Your task to perform on an android device: check battery use Image 0: 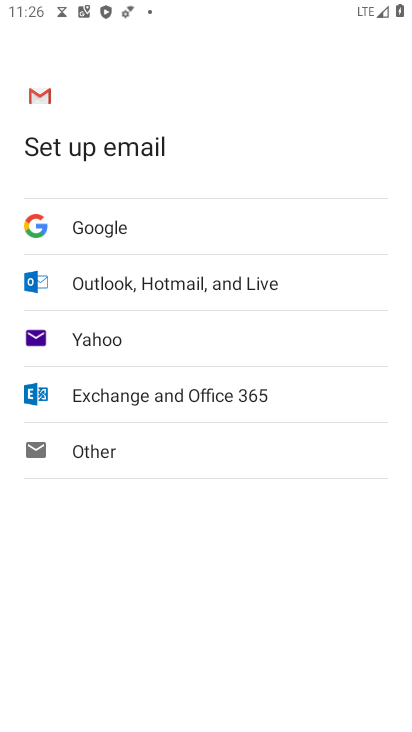
Step 0: press back button
Your task to perform on an android device: check battery use Image 1: 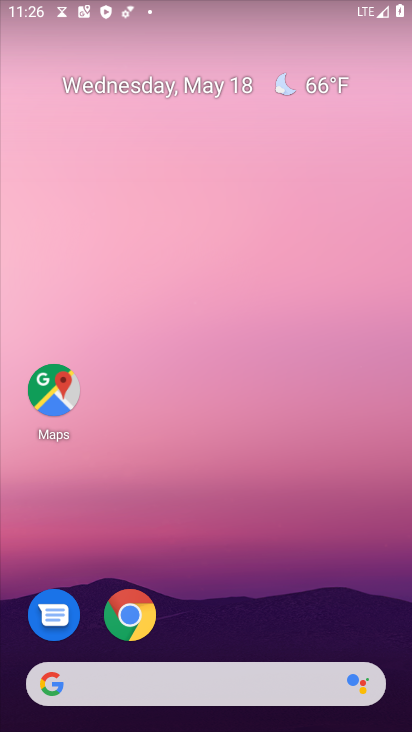
Step 1: drag from (215, 582) to (199, 36)
Your task to perform on an android device: check battery use Image 2: 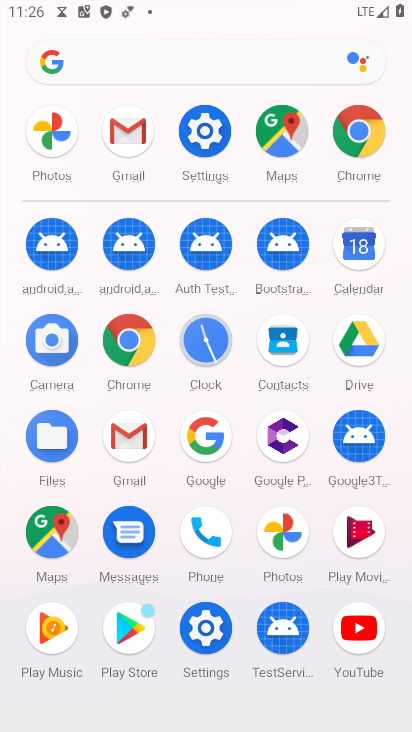
Step 2: click (206, 628)
Your task to perform on an android device: check battery use Image 3: 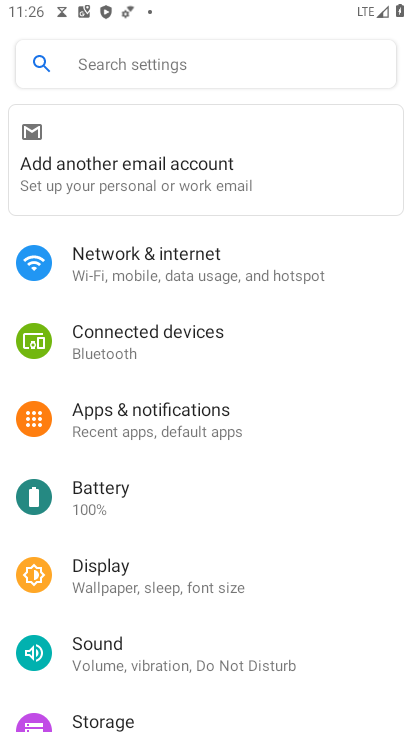
Step 3: drag from (314, 573) to (313, 97)
Your task to perform on an android device: check battery use Image 4: 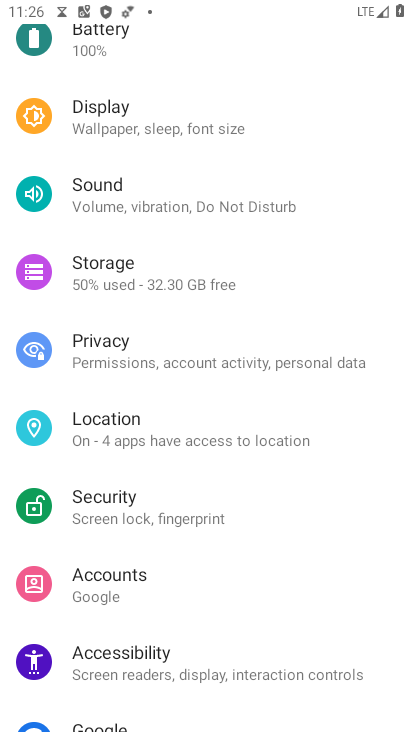
Step 4: click (181, 425)
Your task to perform on an android device: check battery use Image 5: 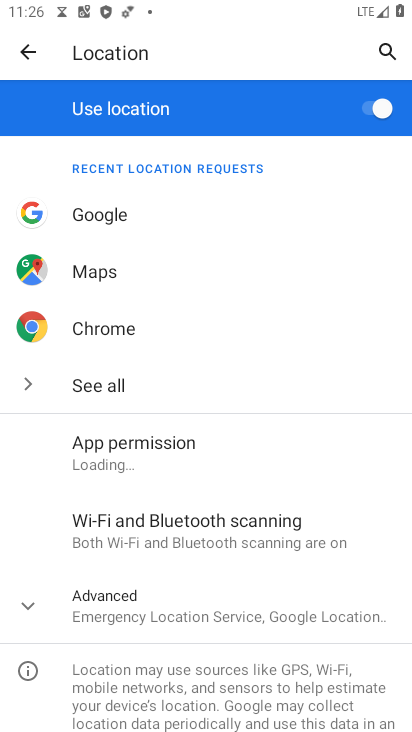
Step 5: click (32, 47)
Your task to perform on an android device: check battery use Image 6: 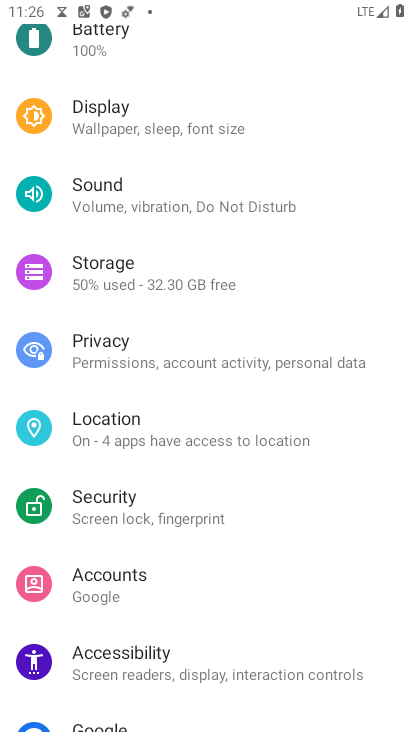
Step 6: drag from (198, 208) to (211, 502)
Your task to perform on an android device: check battery use Image 7: 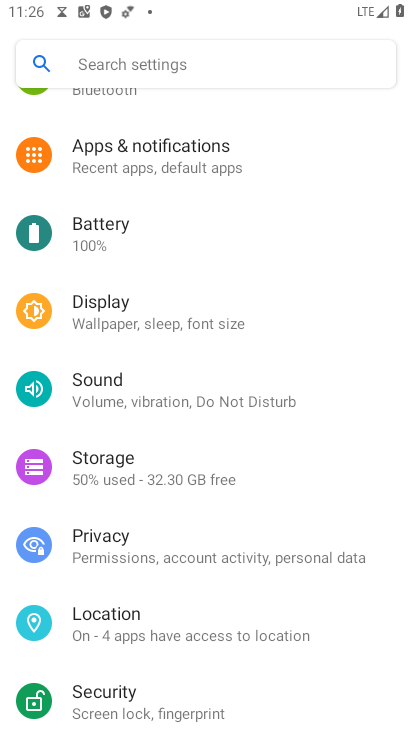
Step 7: click (121, 224)
Your task to perform on an android device: check battery use Image 8: 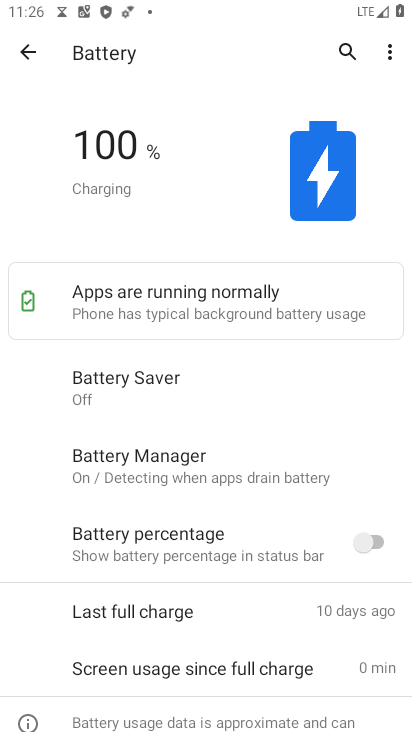
Step 8: task complete